Your task to perform on an android device: check android version Image 0: 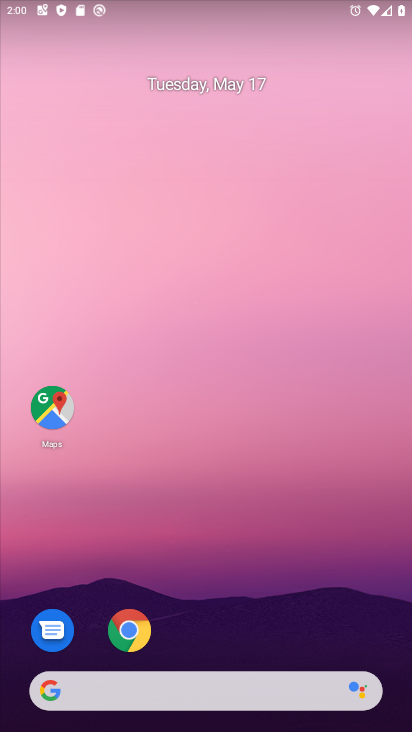
Step 0: press home button
Your task to perform on an android device: check android version Image 1: 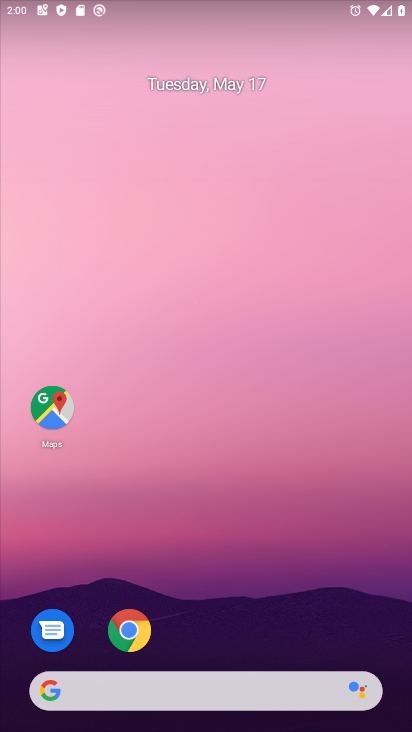
Step 1: drag from (346, 600) to (339, 169)
Your task to perform on an android device: check android version Image 2: 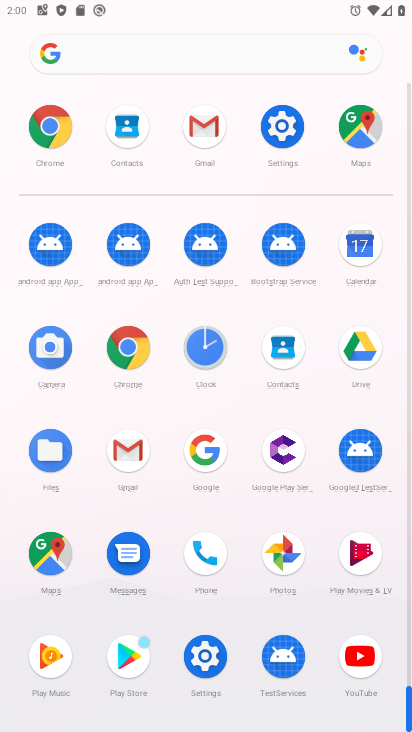
Step 2: click (208, 658)
Your task to perform on an android device: check android version Image 3: 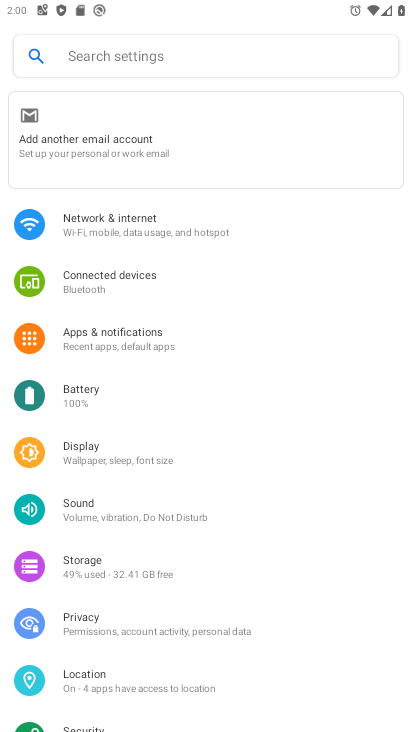
Step 3: drag from (212, 685) to (285, 244)
Your task to perform on an android device: check android version Image 4: 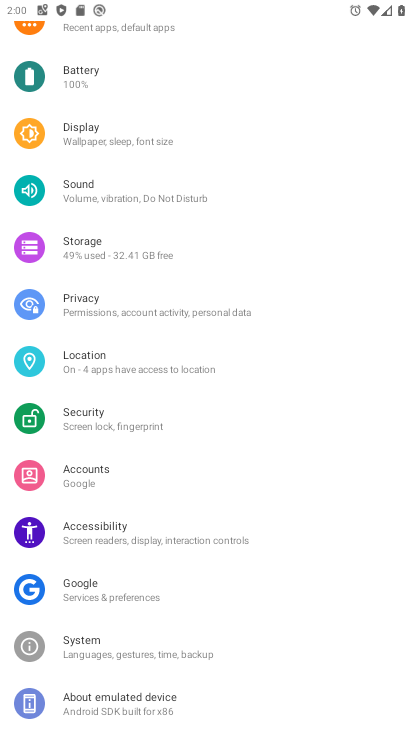
Step 4: click (181, 714)
Your task to perform on an android device: check android version Image 5: 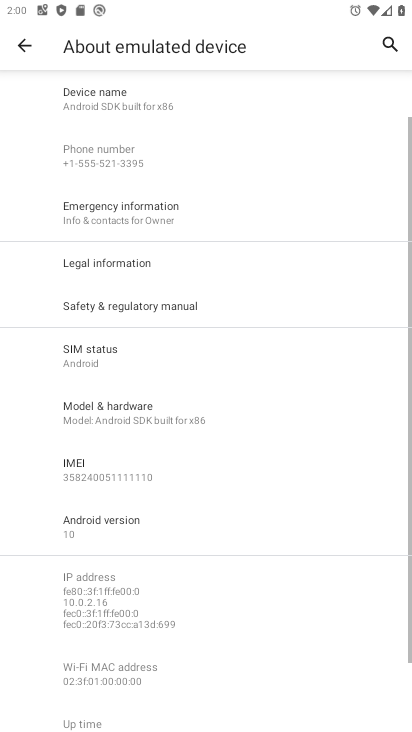
Step 5: drag from (258, 685) to (275, 316)
Your task to perform on an android device: check android version Image 6: 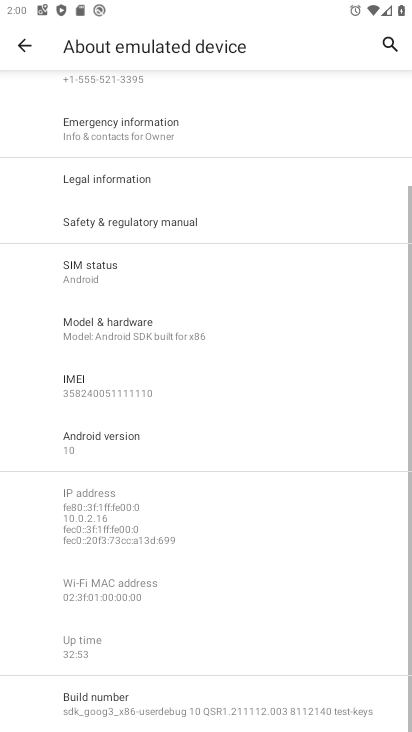
Step 6: click (152, 438)
Your task to perform on an android device: check android version Image 7: 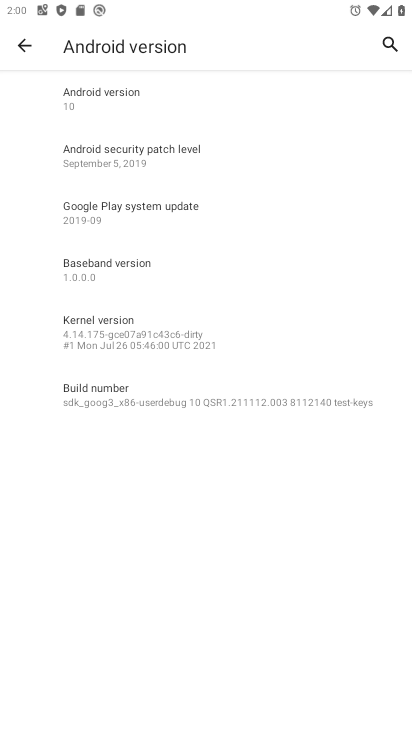
Step 7: task complete